Your task to perform on an android device: show emergency info Image 0: 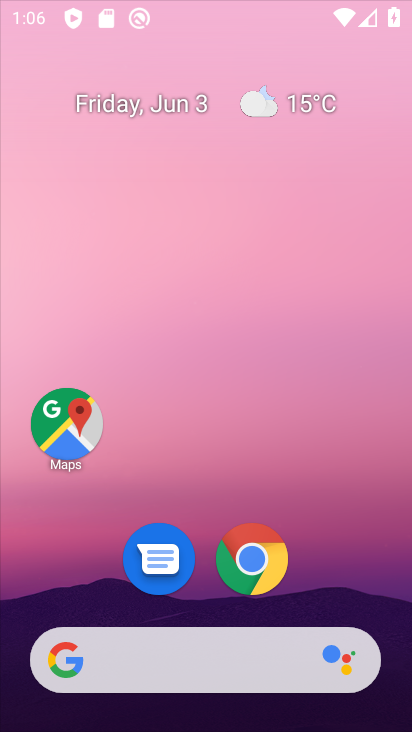
Step 0: drag from (139, 606) to (228, 155)
Your task to perform on an android device: show emergency info Image 1: 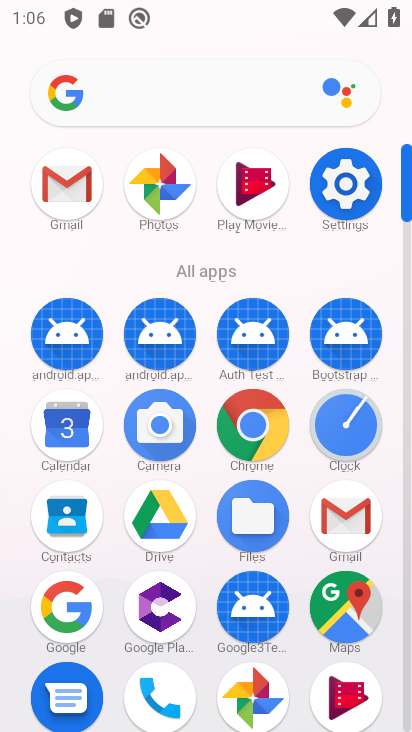
Step 1: drag from (196, 605) to (278, 339)
Your task to perform on an android device: show emergency info Image 2: 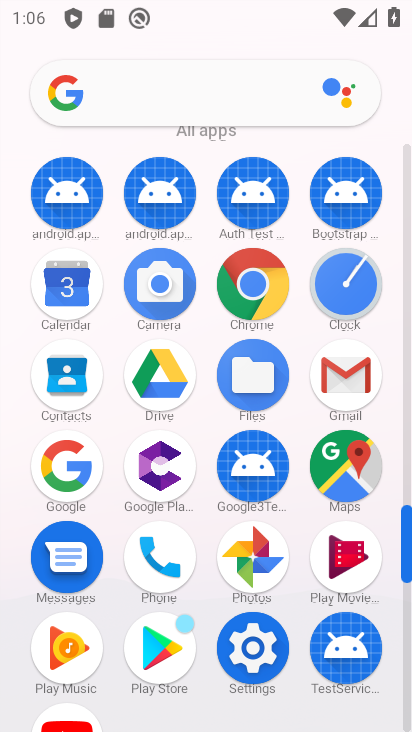
Step 2: click (248, 666)
Your task to perform on an android device: show emergency info Image 3: 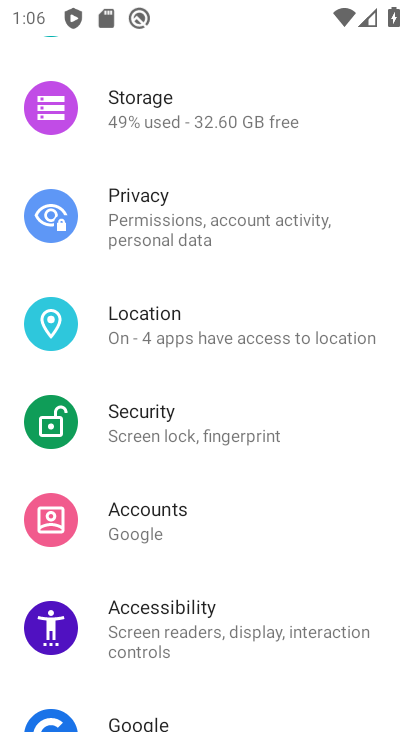
Step 3: drag from (253, 630) to (401, 94)
Your task to perform on an android device: show emergency info Image 4: 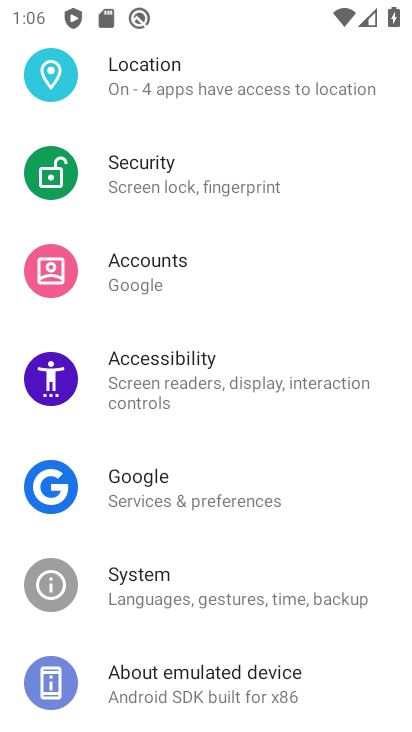
Step 4: click (199, 673)
Your task to perform on an android device: show emergency info Image 5: 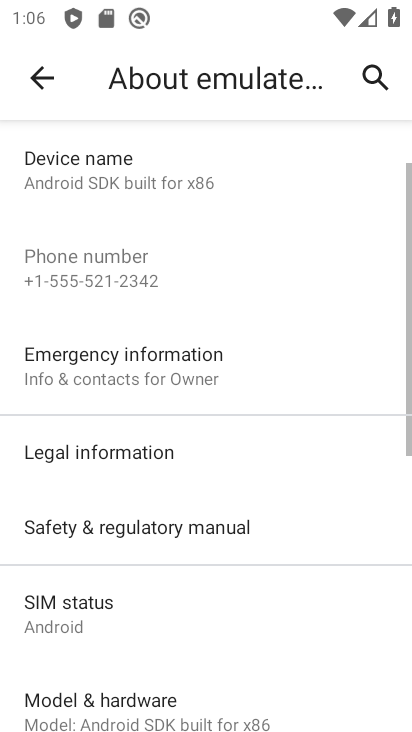
Step 5: drag from (176, 680) to (285, 259)
Your task to perform on an android device: show emergency info Image 6: 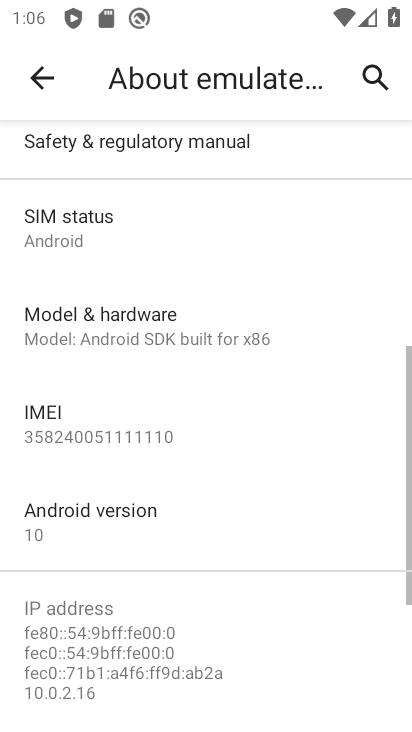
Step 6: drag from (229, 198) to (205, 625)
Your task to perform on an android device: show emergency info Image 7: 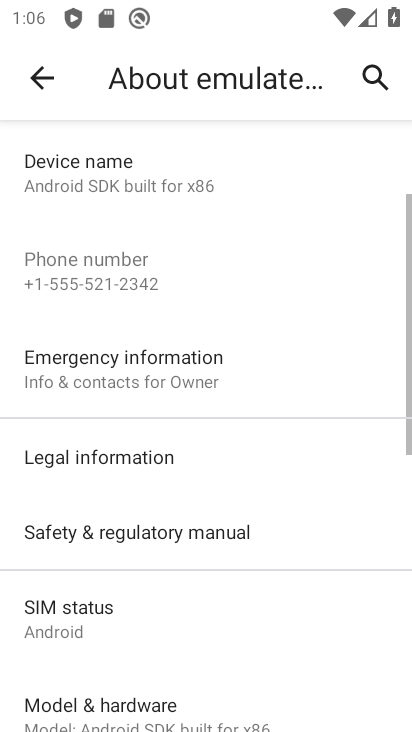
Step 7: click (191, 388)
Your task to perform on an android device: show emergency info Image 8: 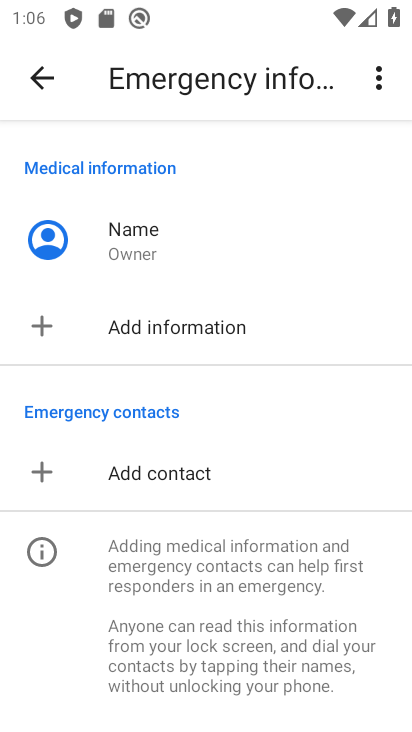
Step 8: task complete